Your task to perform on an android device: Turn off notifications for the Google Maps app Image 0: 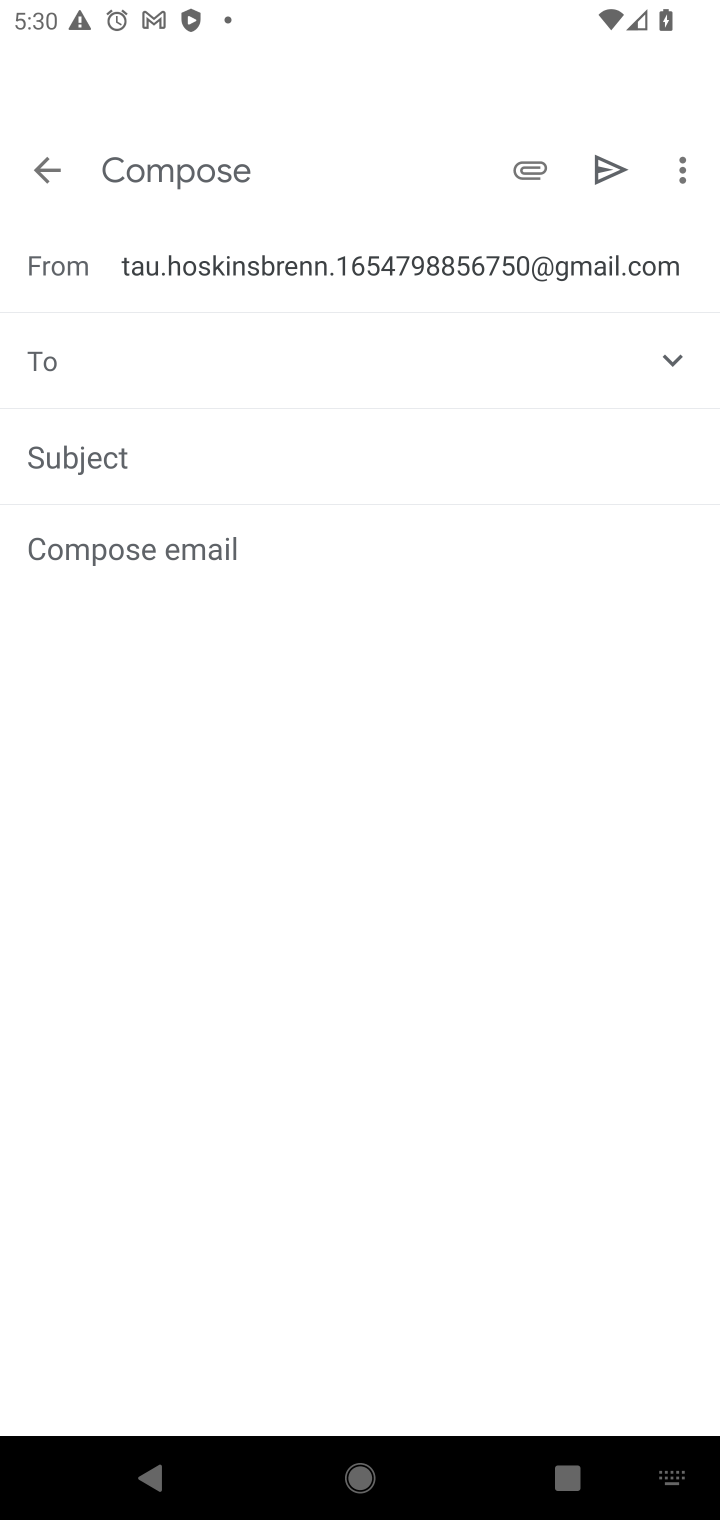
Step 0: press home button
Your task to perform on an android device: Turn off notifications for the Google Maps app Image 1: 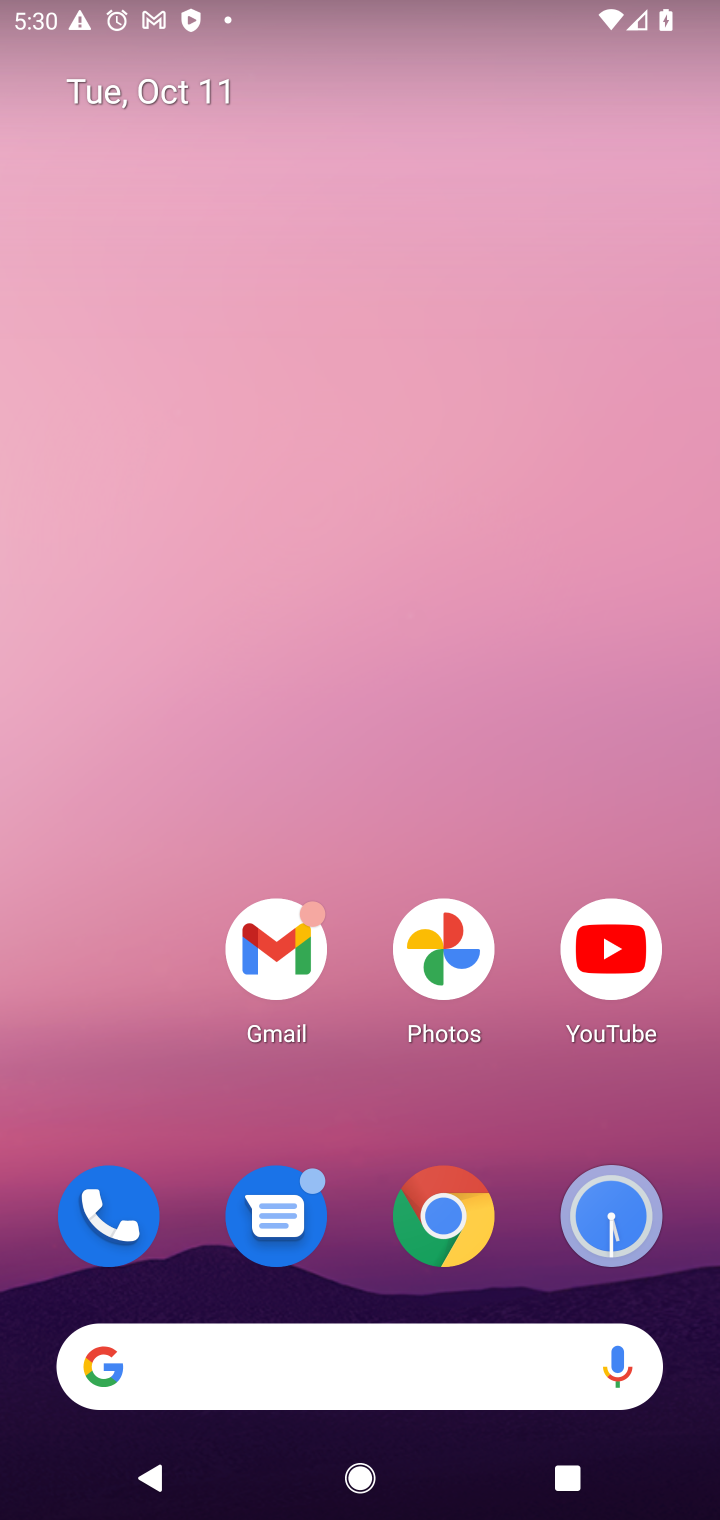
Step 1: click (455, 1212)
Your task to perform on an android device: Turn off notifications for the Google Maps app Image 2: 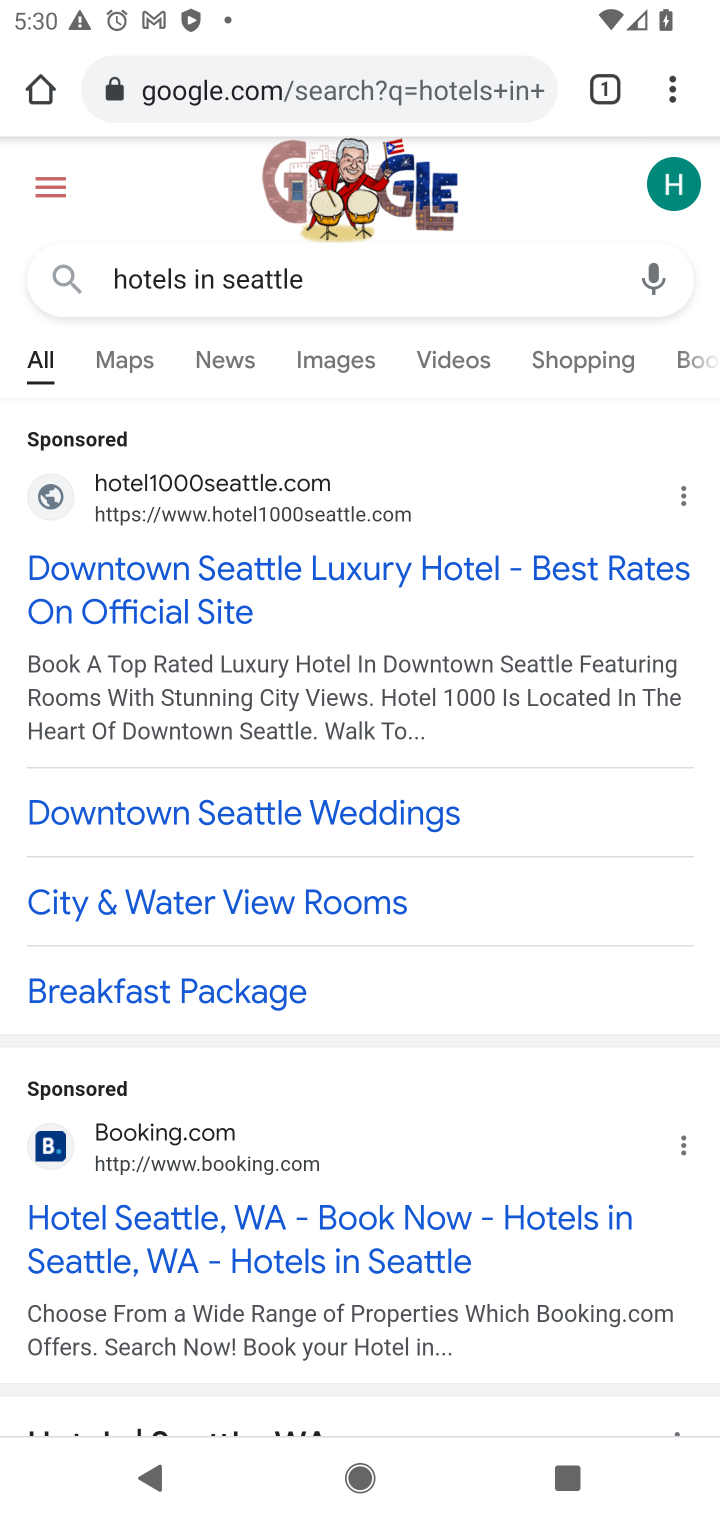
Step 2: click (479, 288)
Your task to perform on an android device: Turn off notifications for the Google Maps app Image 3: 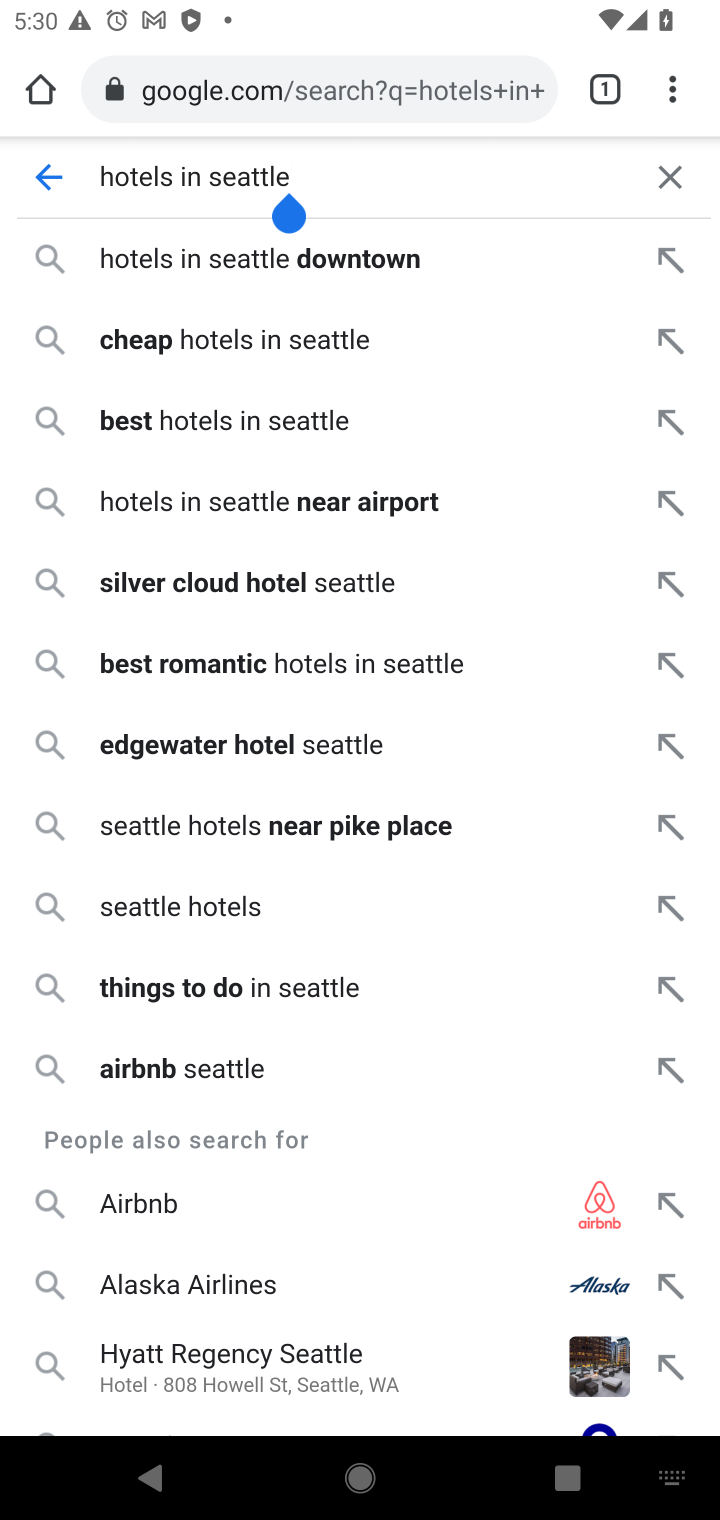
Step 3: click (657, 178)
Your task to perform on an android device: Turn off notifications for the Google Maps app Image 4: 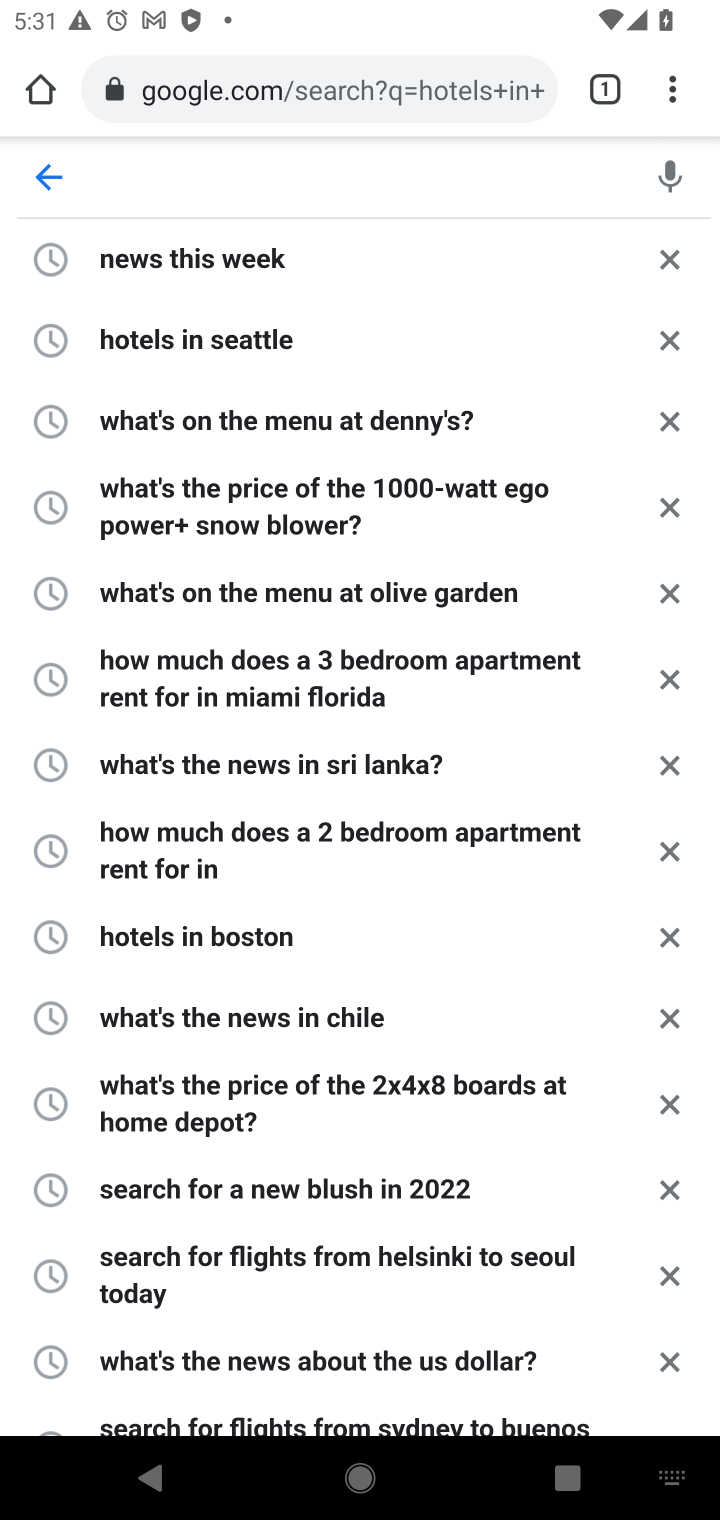
Step 4: press home button
Your task to perform on an android device: Turn off notifications for the Google Maps app Image 5: 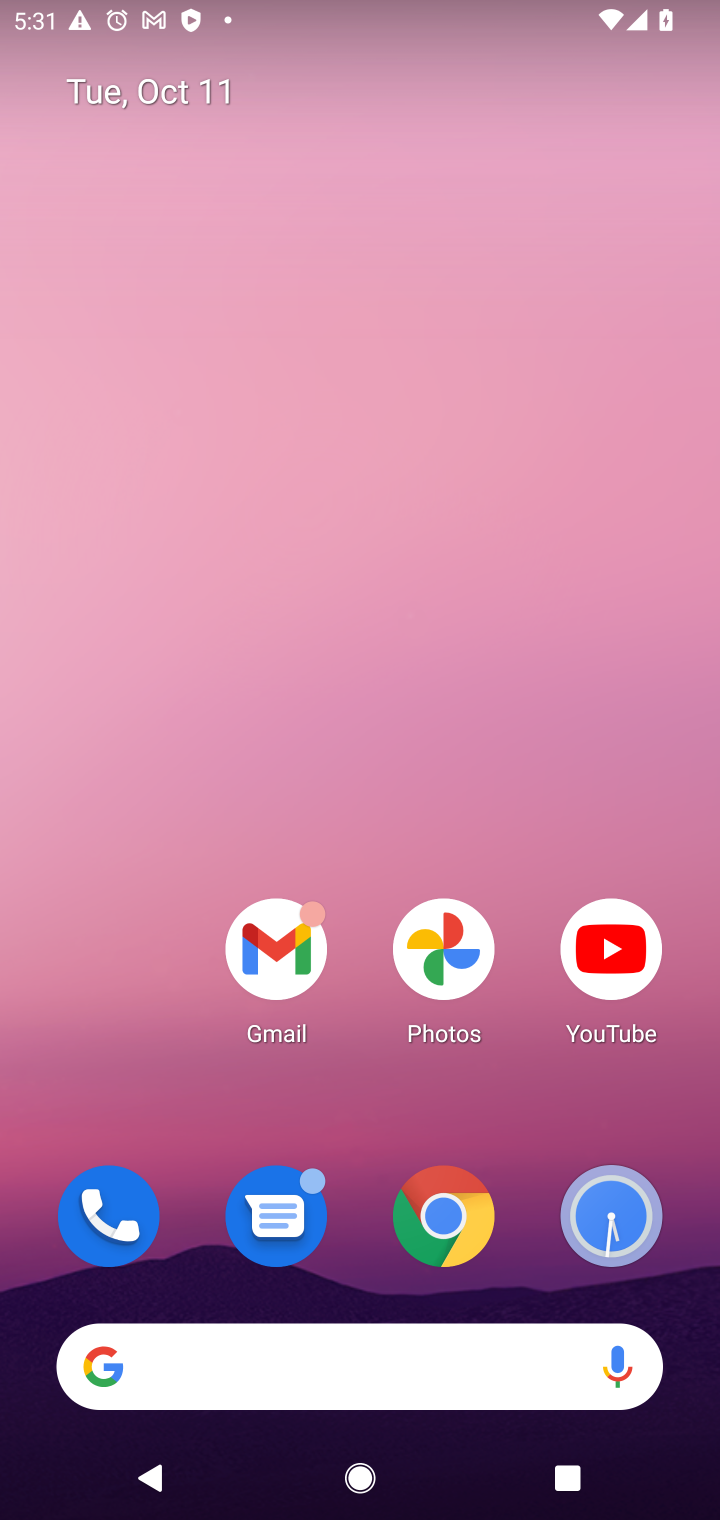
Step 5: drag from (452, 1268) to (507, 322)
Your task to perform on an android device: Turn off notifications for the Google Maps app Image 6: 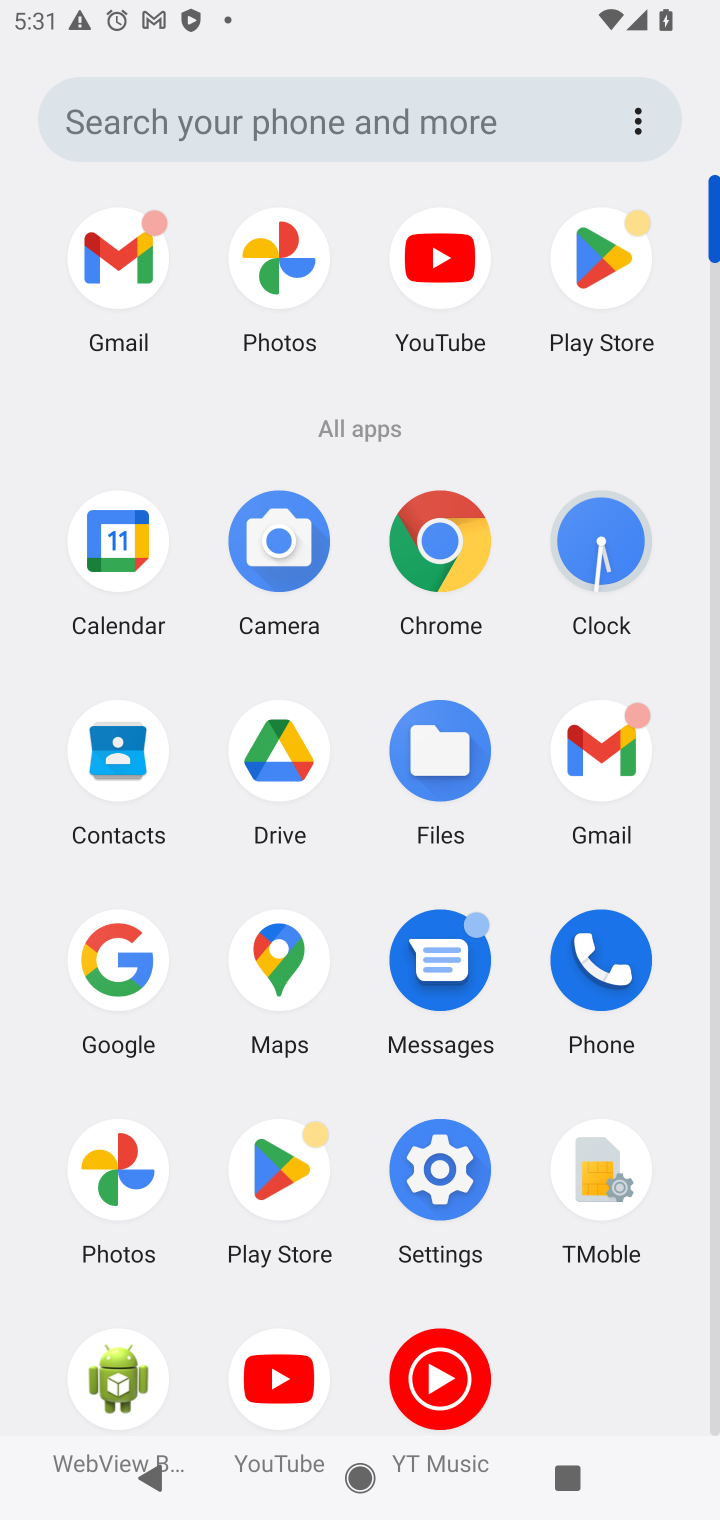
Step 6: click (284, 985)
Your task to perform on an android device: Turn off notifications for the Google Maps app Image 7: 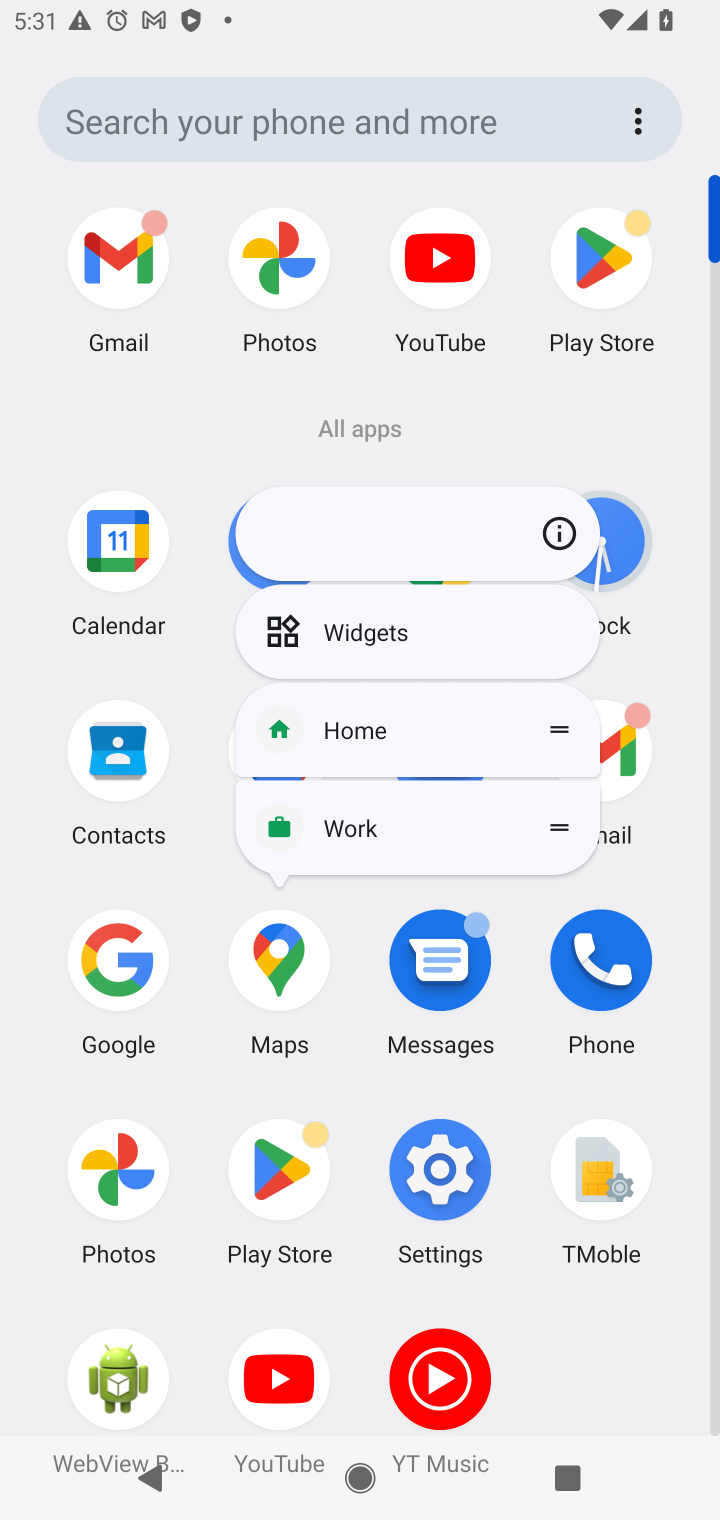
Step 7: click (559, 523)
Your task to perform on an android device: Turn off notifications for the Google Maps app Image 8: 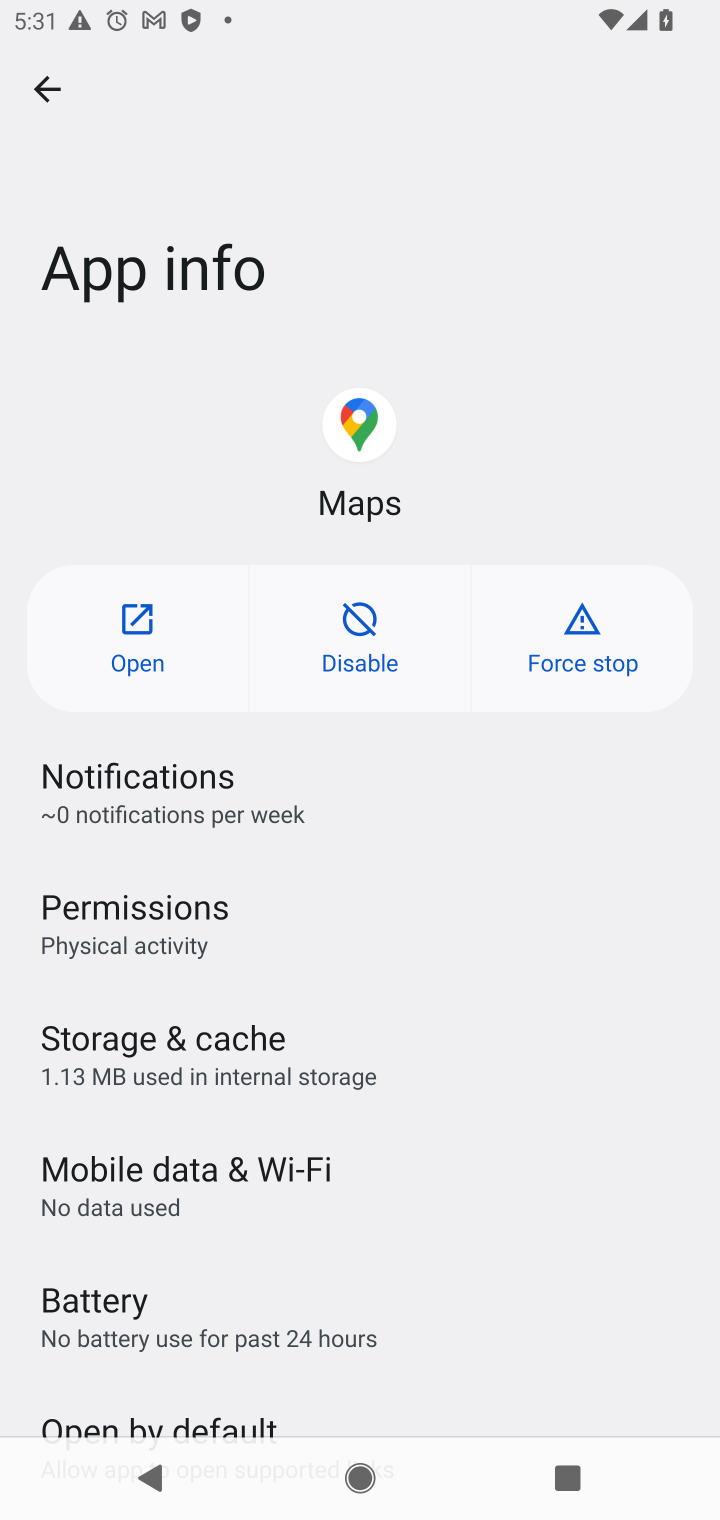
Step 8: click (308, 817)
Your task to perform on an android device: Turn off notifications for the Google Maps app Image 9: 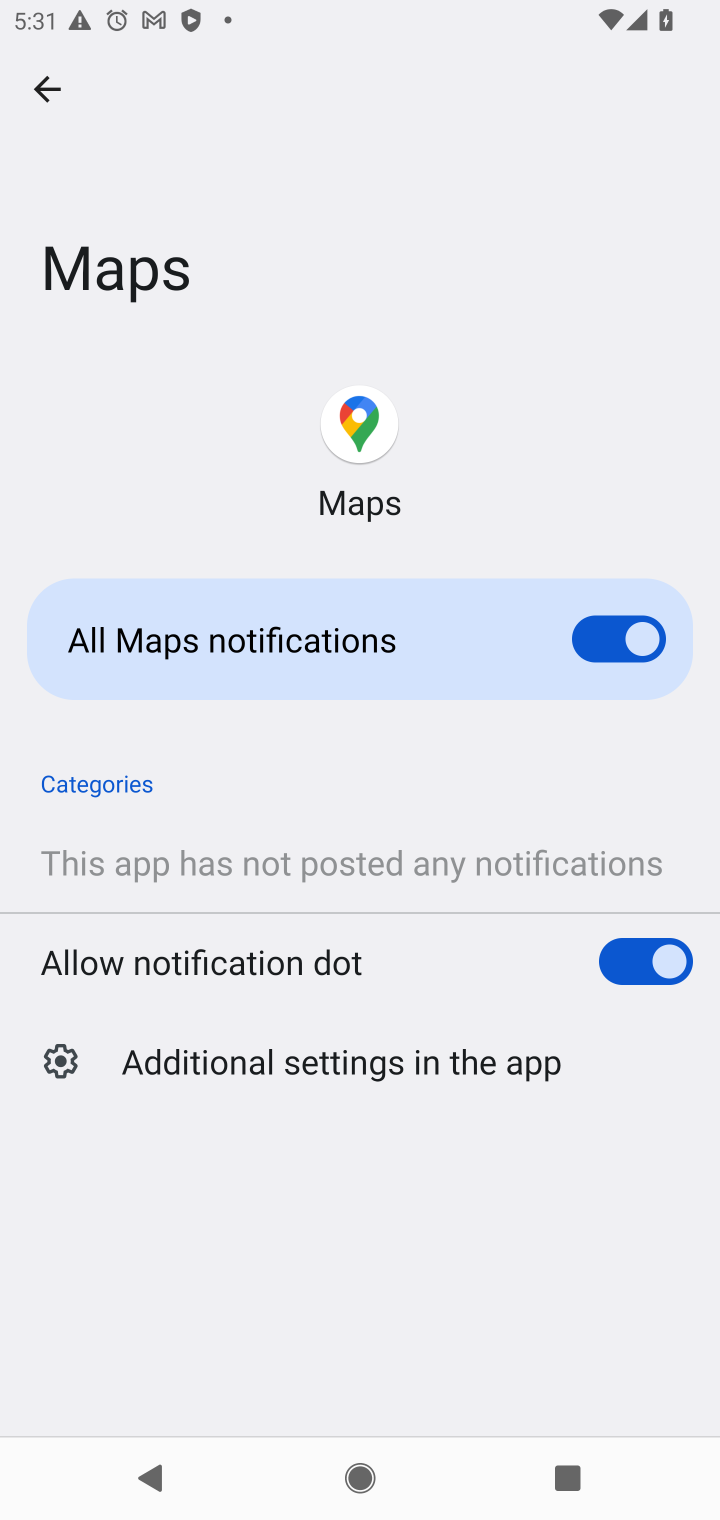
Step 9: click (608, 666)
Your task to perform on an android device: Turn off notifications for the Google Maps app Image 10: 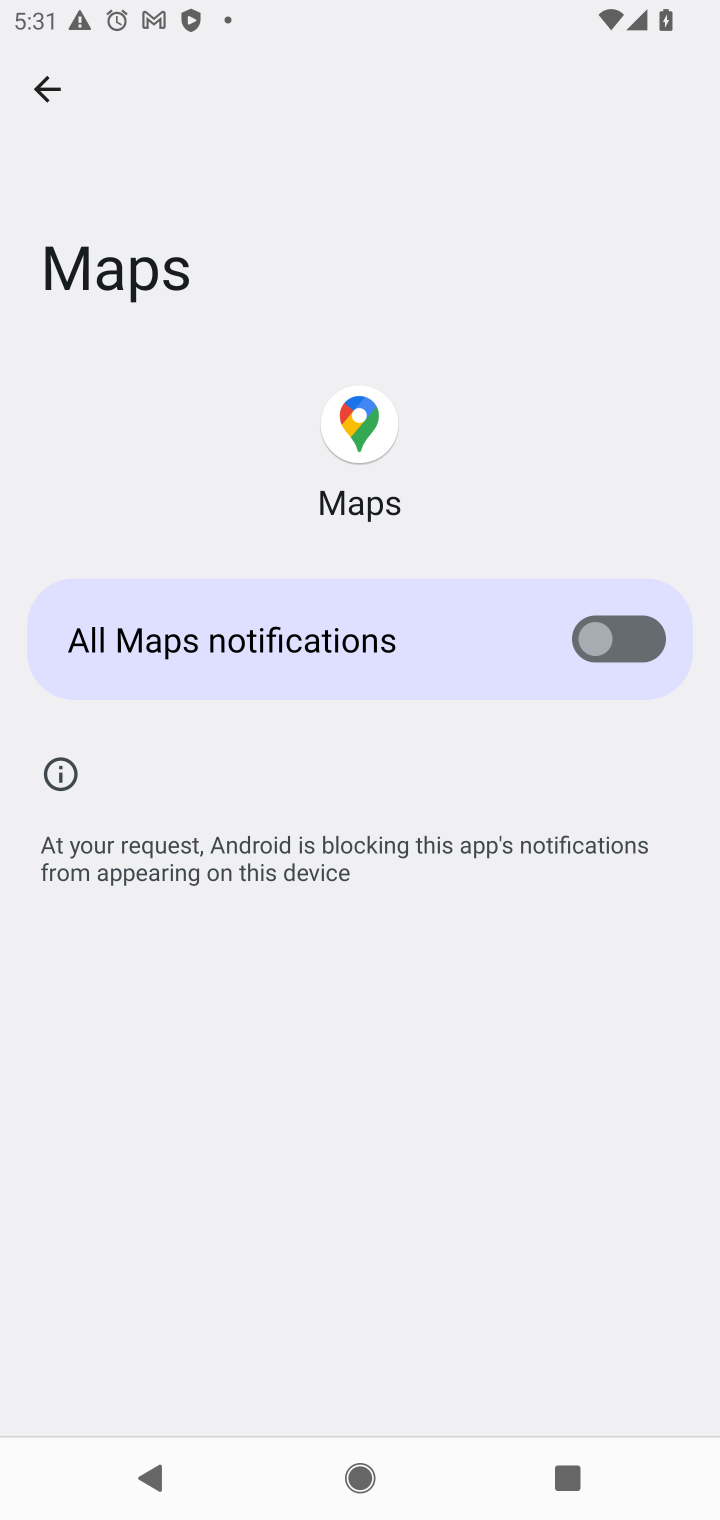
Step 10: task complete